Your task to perform on an android device: uninstall "Google Calendar" Image 0: 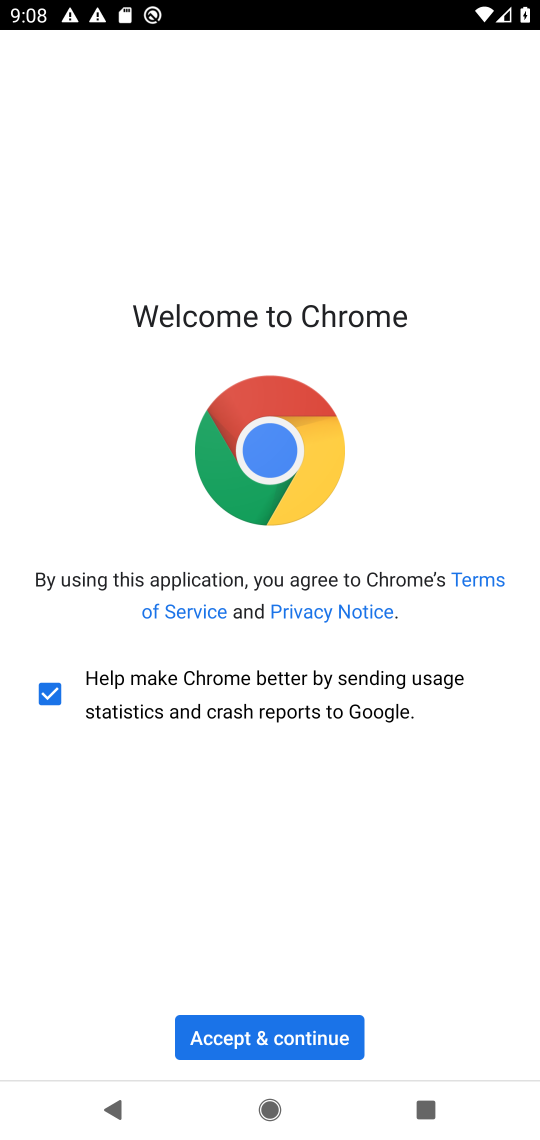
Step 0: press home button
Your task to perform on an android device: uninstall "Google Calendar" Image 1: 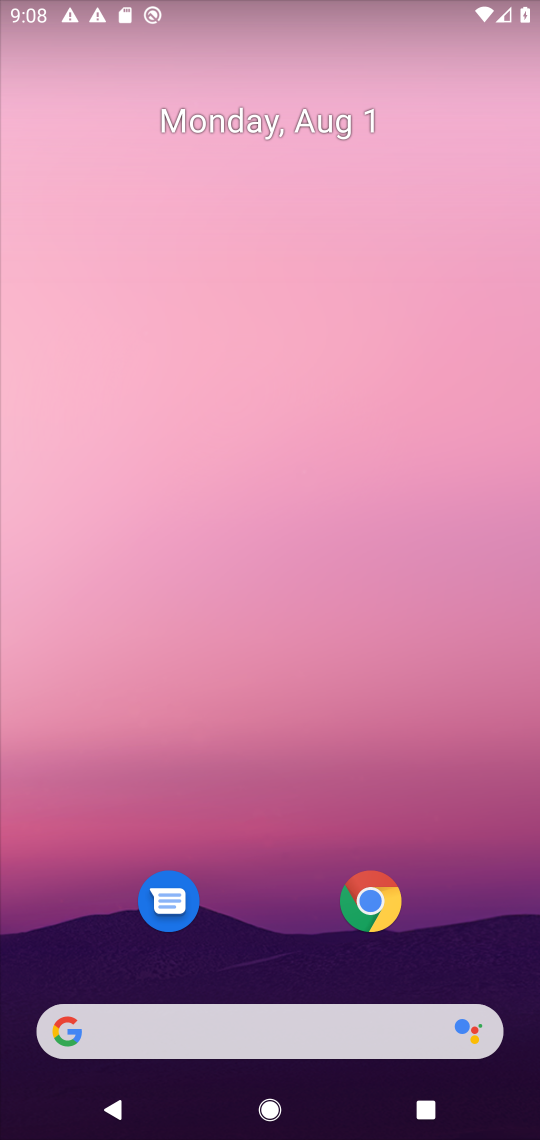
Step 1: drag from (291, 927) to (285, 190)
Your task to perform on an android device: uninstall "Google Calendar" Image 2: 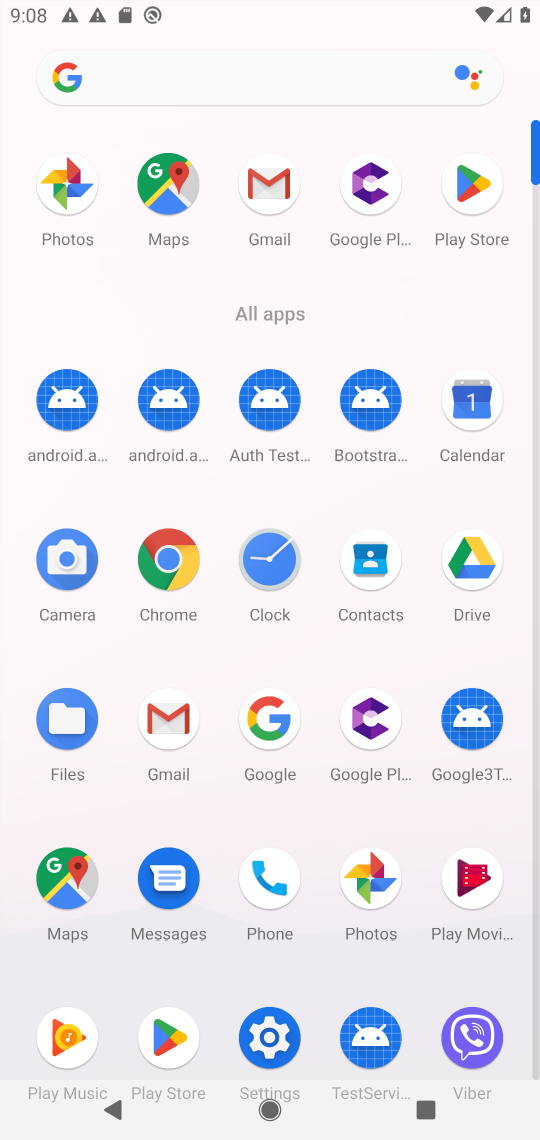
Step 2: click (483, 183)
Your task to perform on an android device: uninstall "Google Calendar" Image 3: 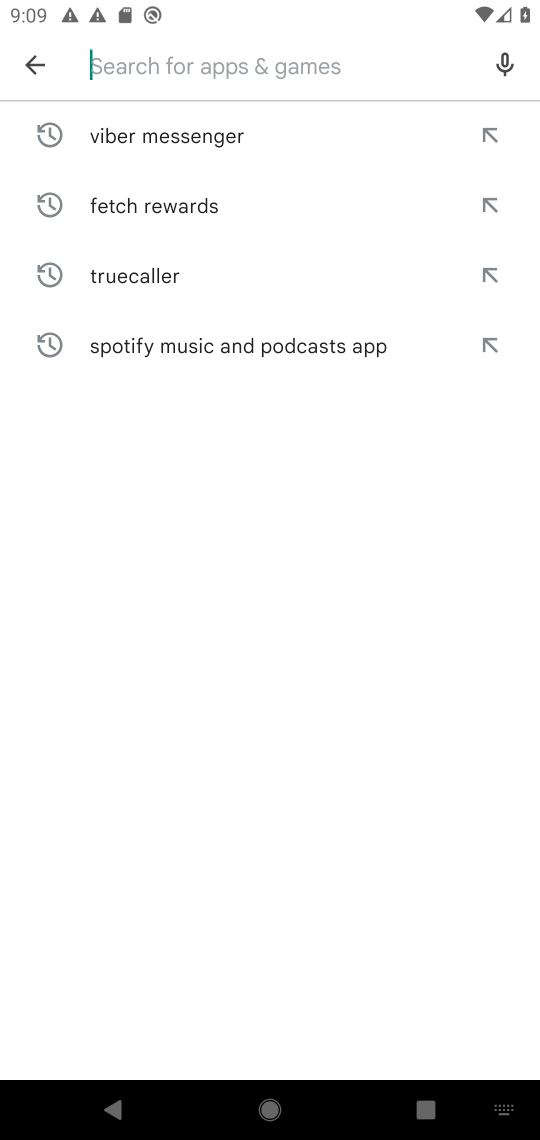
Step 3: type "google calender"
Your task to perform on an android device: uninstall "Google Calendar" Image 4: 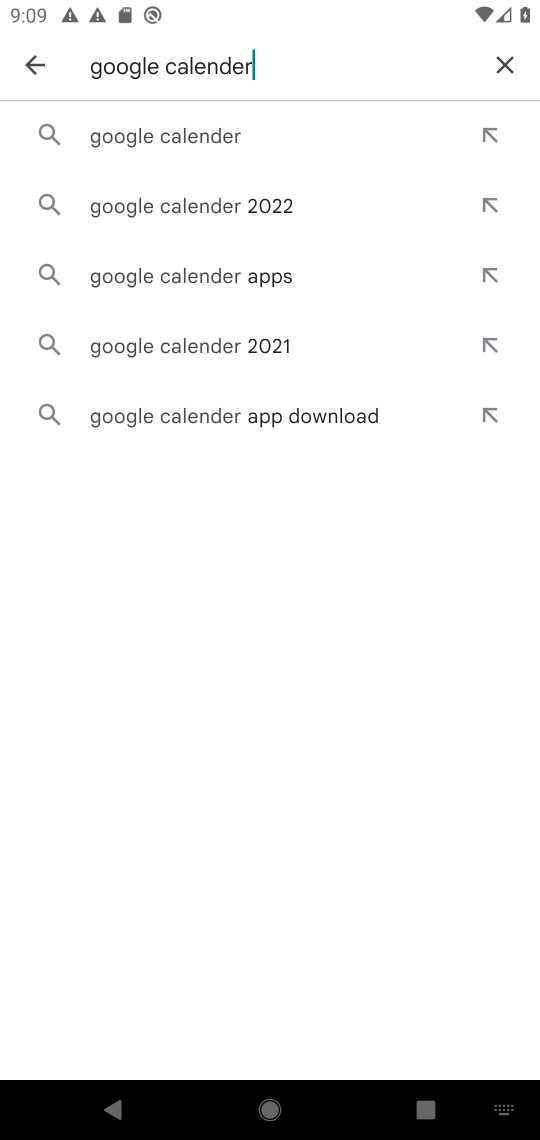
Step 4: click (314, 134)
Your task to perform on an android device: uninstall "Google Calendar" Image 5: 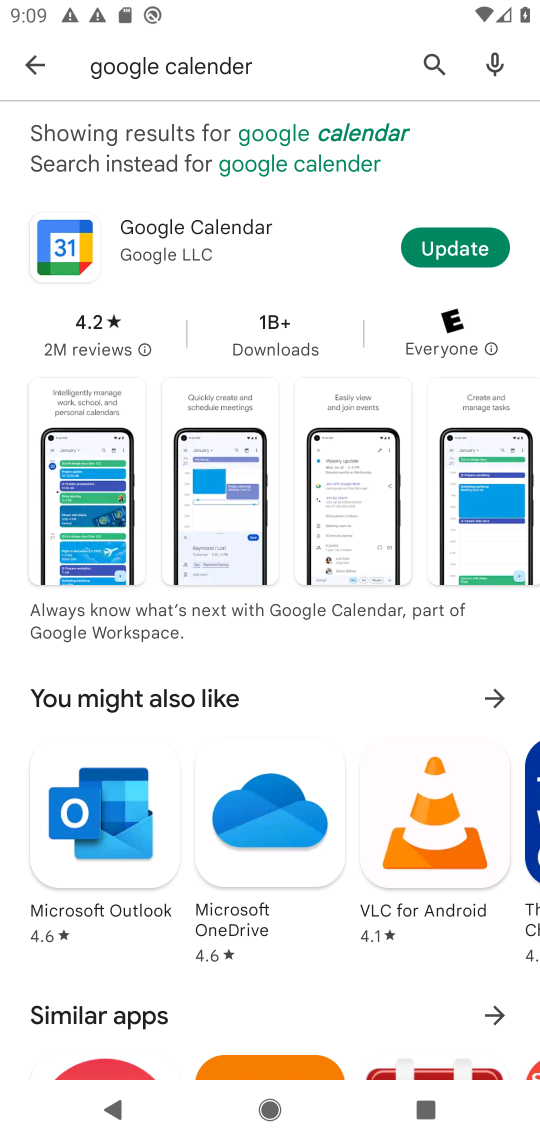
Step 5: click (211, 222)
Your task to perform on an android device: uninstall "Google Calendar" Image 6: 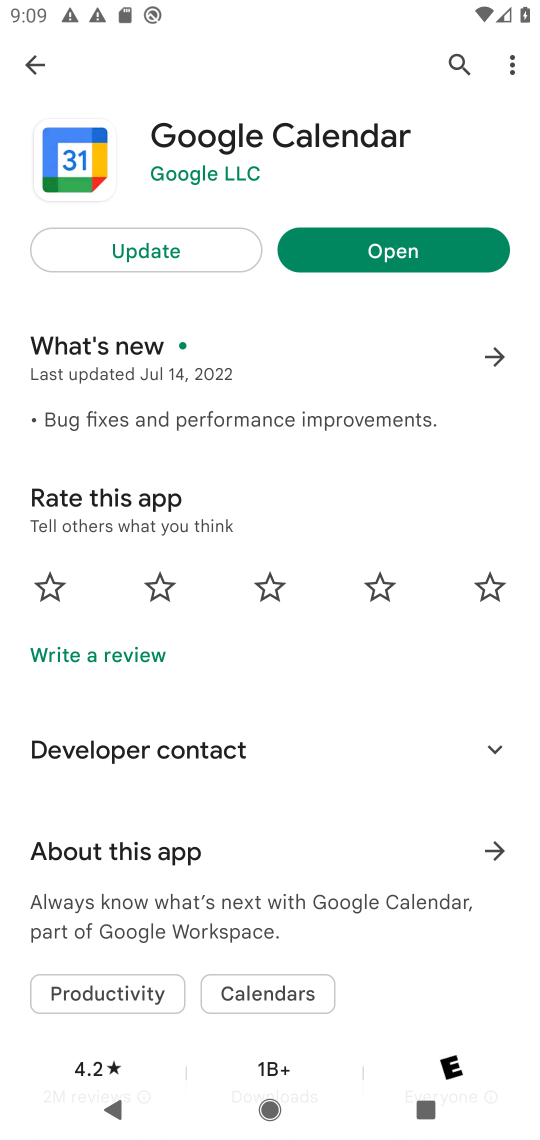
Step 6: task complete